Your task to perform on an android device: Turn off the flashlight Image 0: 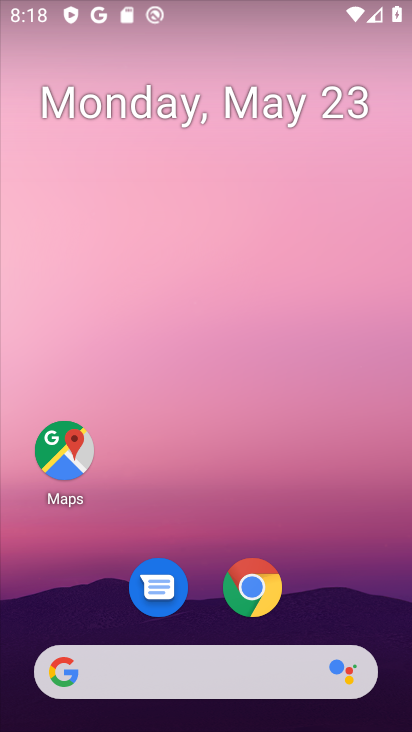
Step 0: drag from (238, 616) to (243, 32)
Your task to perform on an android device: Turn off the flashlight Image 1: 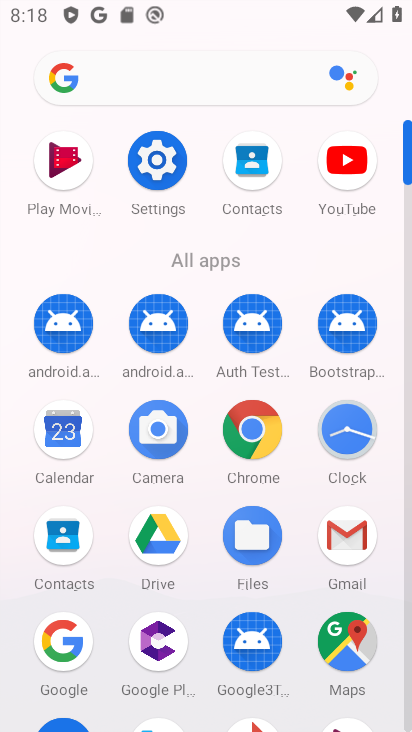
Step 1: click (167, 81)
Your task to perform on an android device: Turn off the flashlight Image 2: 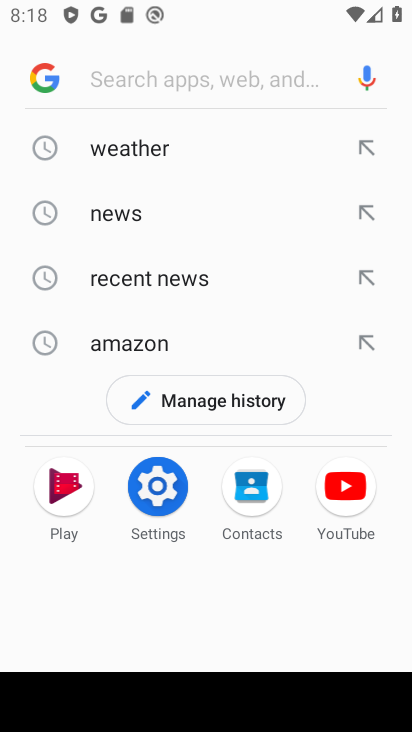
Step 2: type "flashlight"
Your task to perform on an android device: Turn off the flashlight Image 3: 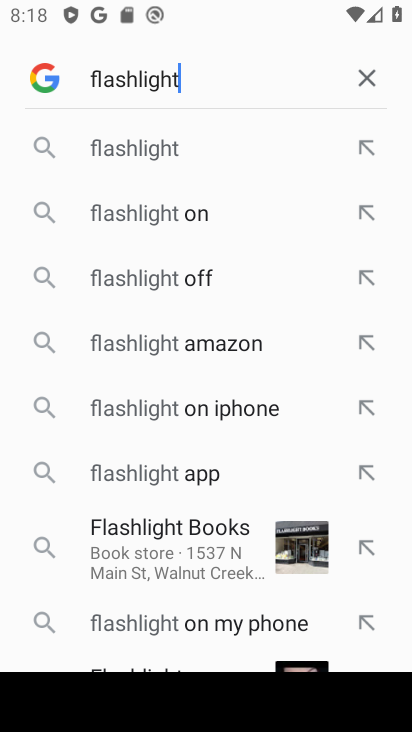
Step 3: click (146, 148)
Your task to perform on an android device: Turn off the flashlight Image 4: 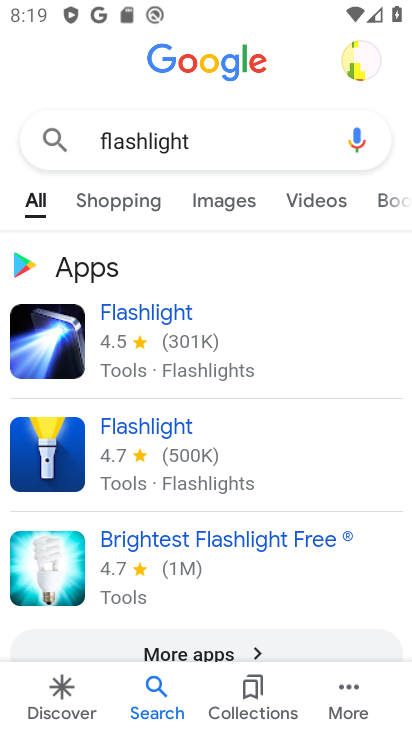
Step 4: press home button
Your task to perform on an android device: Turn off the flashlight Image 5: 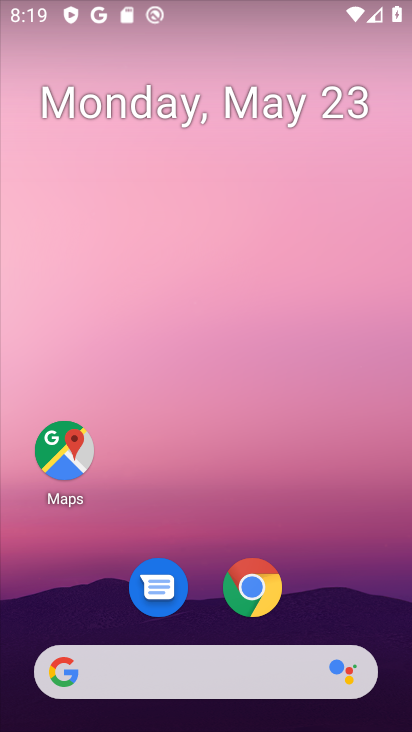
Step 5: drag from (205, 625) to (283, 12)
Your task to perform on an android device: Turn off the flashlight Image 6: 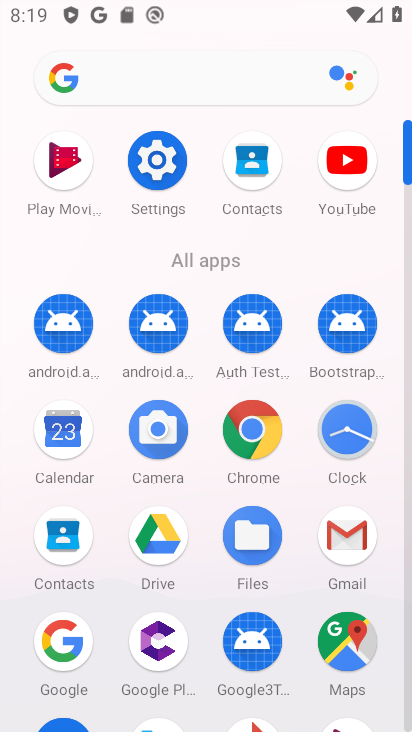
Step 6: click (154, 160)
Your task to perform on an android device: Turn off the flashlight Image 7: 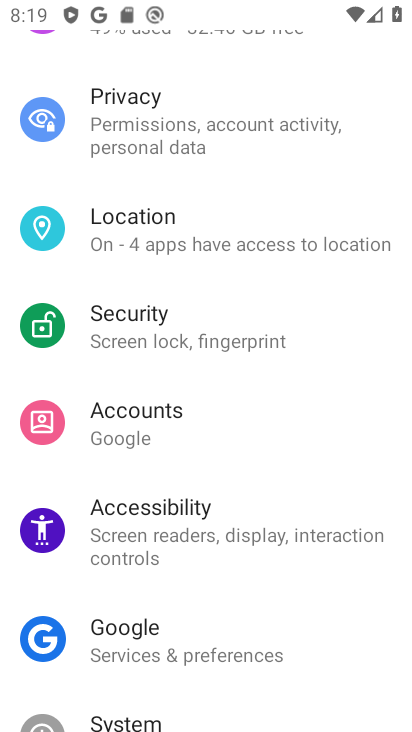
Step 7: drag from (162, 122) to (184, 669)
Your task to perform on an android device: Turn off the flashlight Image 8: 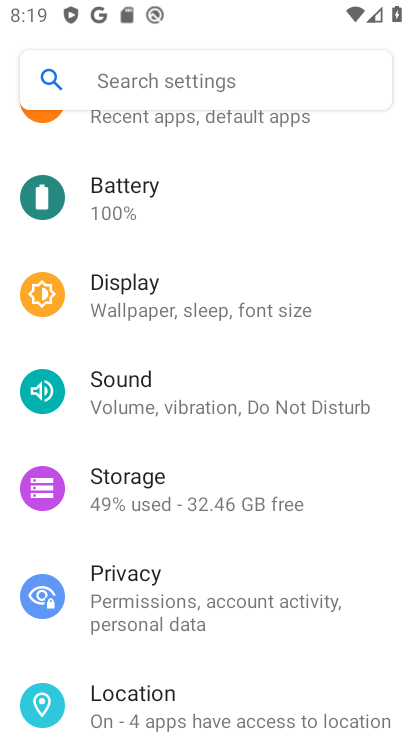
Step 8: click (147, 67)
Your task to perform on an android device: Turn off the flashlight Image 9: 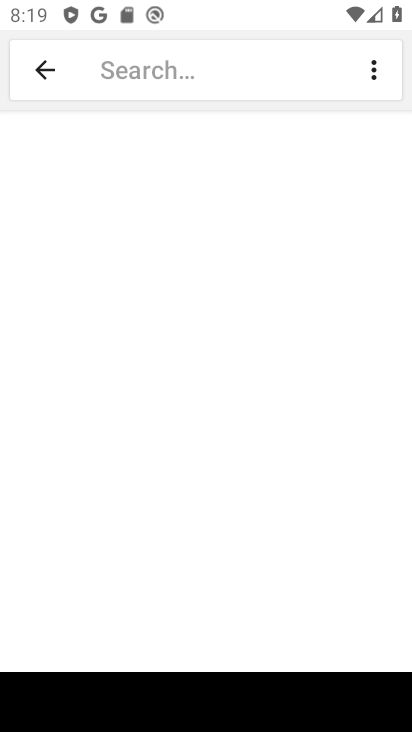
Step 9: type "flashlight"
Your task to perform on an android device: Turn off the flashlight Image 10: 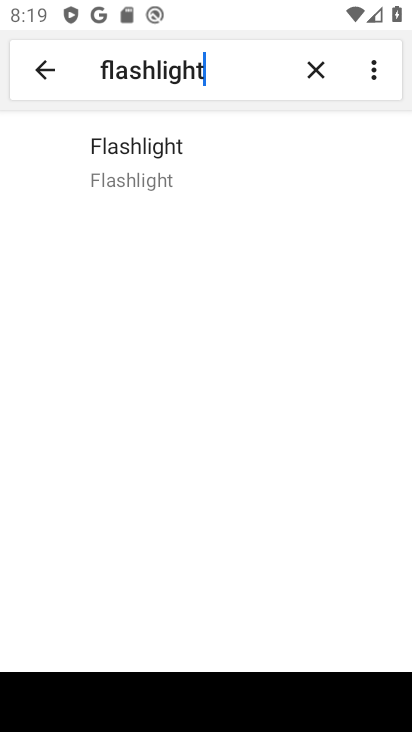
Step 10: click (154, 156)
Your task to perform on an android device: Turn off the flashlight Image 11: 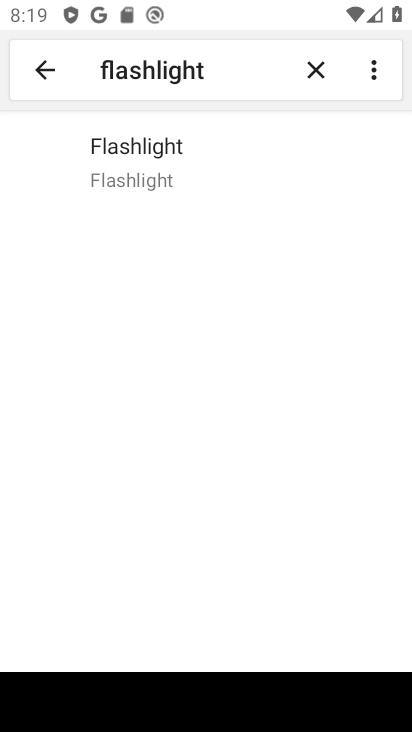
Step 11: task complete